Your task to perform on an android device: Go to Android settings Image 0: 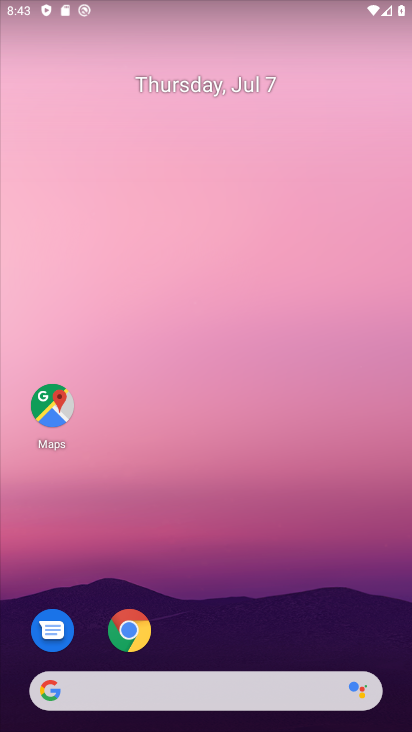
Step 0: drag from (198, 634) to (213, 148)
Your task to perform on an android device: Go to Android settings Image 1: 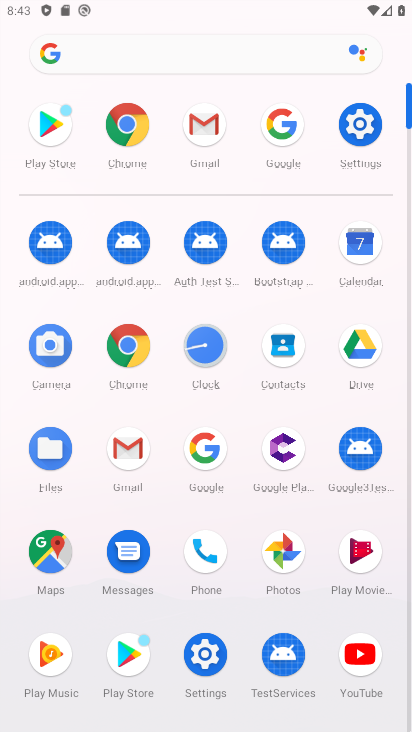
Step 1: click (362, 142)
Your task to perform on an android device: Go to Android settings Image 2: 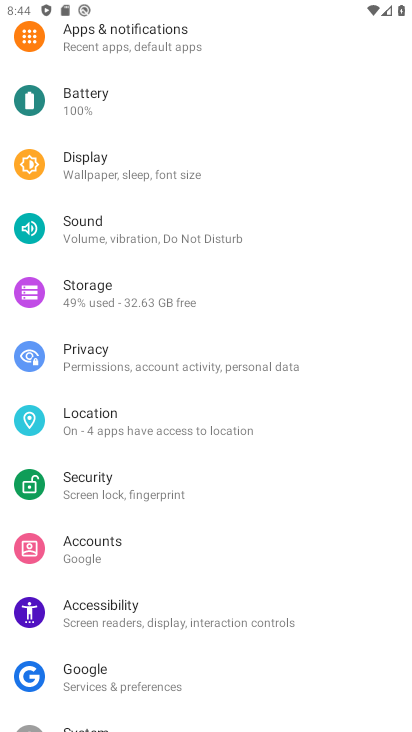
Step 2: task complete